Your task to perform on an android device: Open privacy settings Image 0: 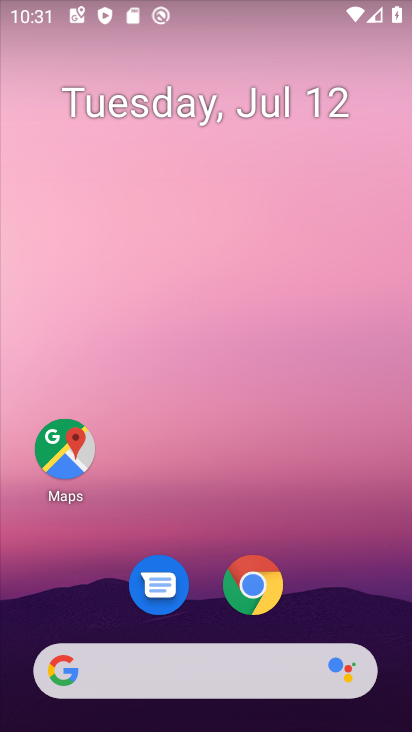
Step 0: drag from (316, 571) to (314, 73)
Your task to perform on an android device: Open privacy settings Image 1: 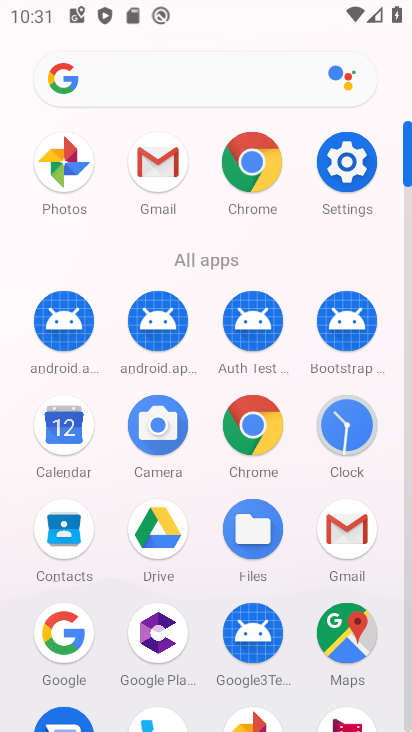
Step 1: click (336, 159)
Your task to perform on an android device: Open privacy settings Image 2: 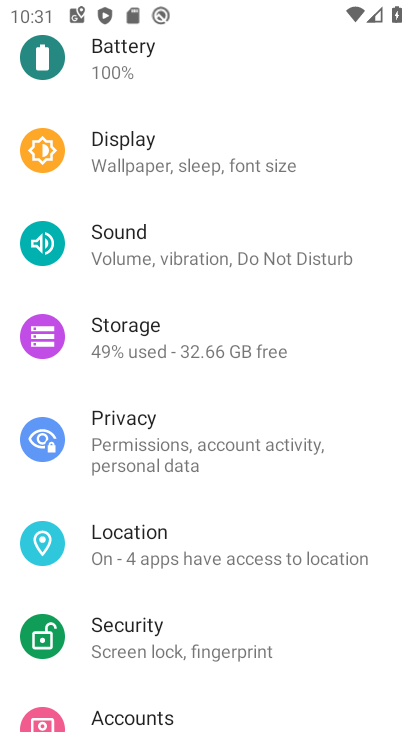
Step 2: click (181, 448)
Your task to perform on an android device: Open privacy settings Image 3: 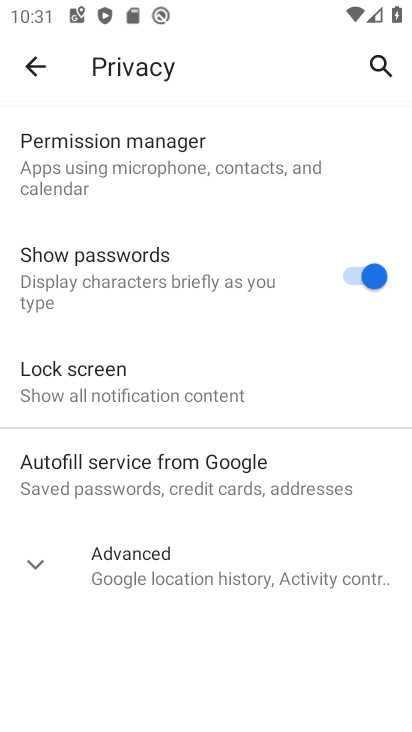
Step 3: click (32, 558)
Your task to perform on an android device: Open privacy settings Image 4: 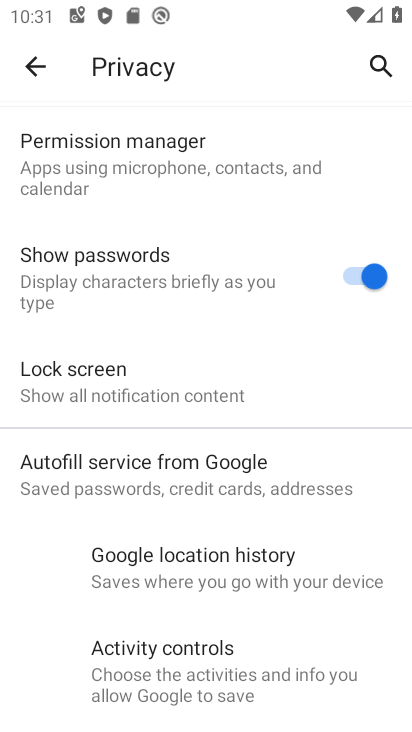
Step 4: task complete